Your task to perform on an android device: Go to Maps Image 0: 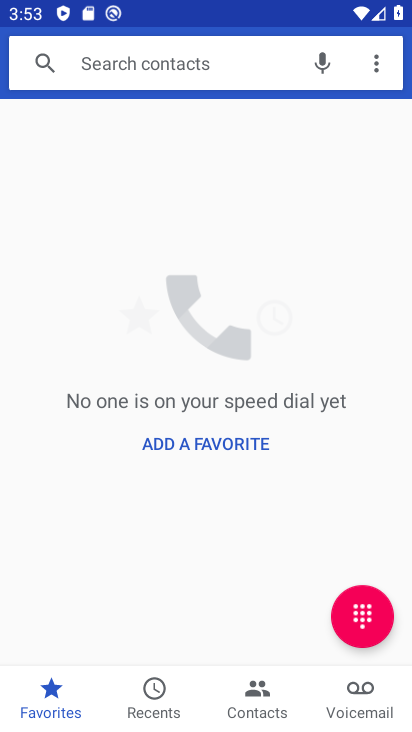
Step 0: press back button
Your task to perform on an android device: Go to Maps Image 1: 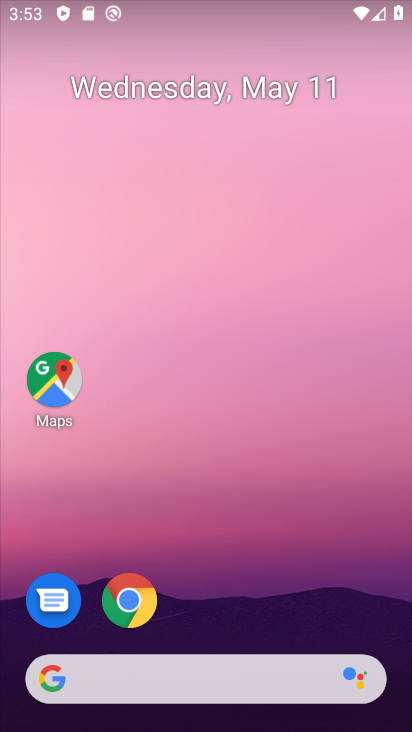
Step 1: click (43, 383)
Your task to perform on an android device: Go to Maps Image 2: 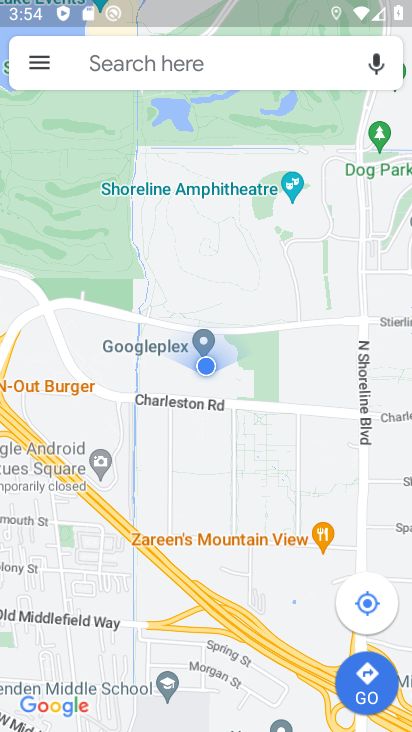
Step 2: task complete